Your task to perform on an android device: turn off smart reply in the gmail app Image 0: 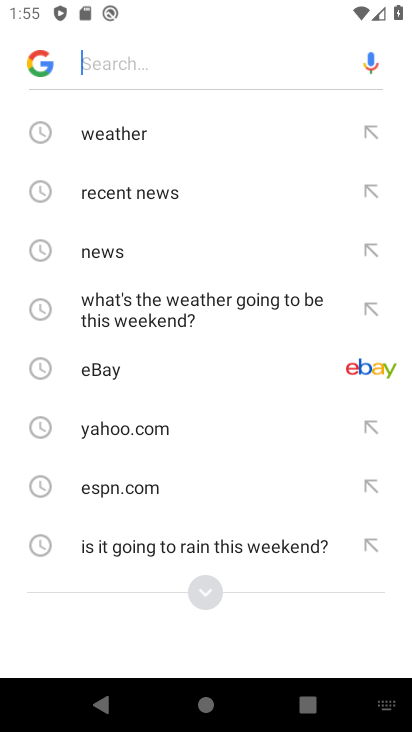
Step 0: press home button
Your task to perform on an android device: turn off smart reply in the gmail app Image 1: 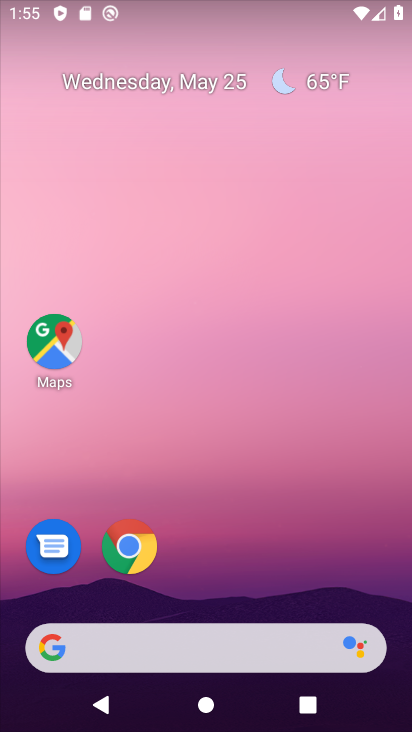
Step 1: drag from (261, 567) to (172, 35)
Your task to perform on an android device: turn off smart reply in the gmail app Image 2: 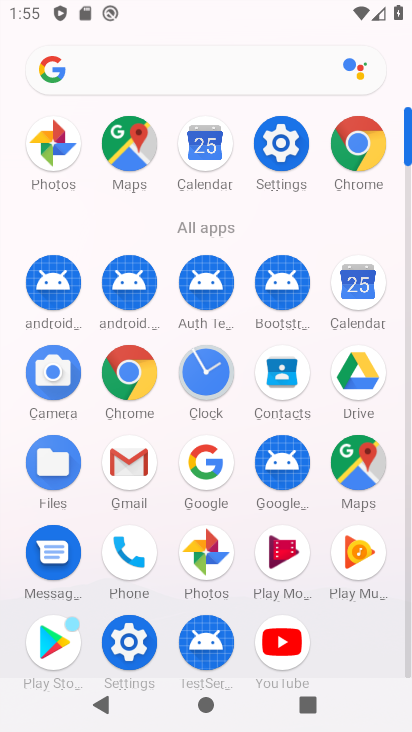
Step 2: click (127, 459)
Your task to perform on an android device: turn off smart reply in the gmail app Image 3: 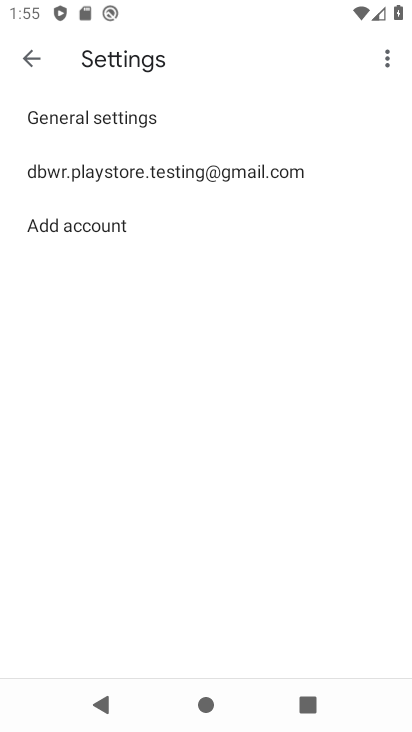
Step 3: click (216, 167)
Your task to perform on an android device: turn off smart reply in the gmail app Image 4: 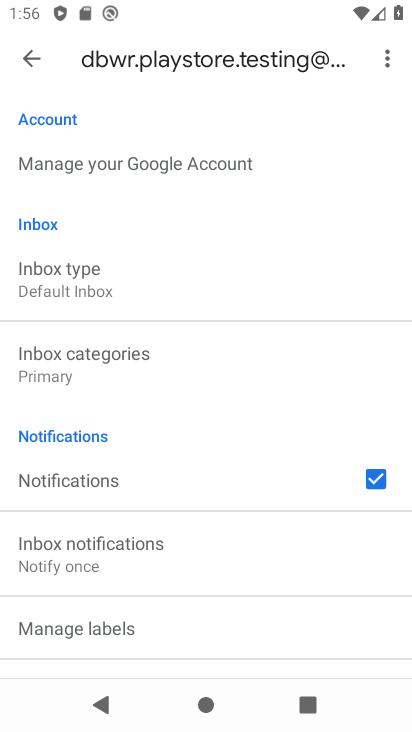
Step 4: drag from (127, 422) to (153, 353)
Your task to perform on an android device: turn off smart reply in the gmail app Image 5: 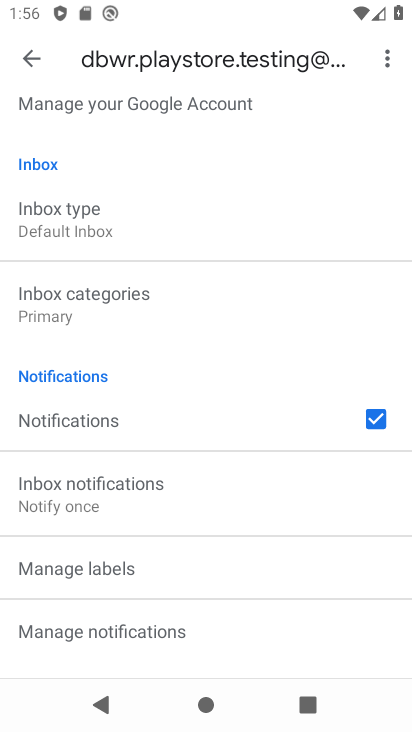
Step 5: drag from (158, 562) to (193, 419)
Your task to perform on an android device: turn off smart reply in the gmail app Image 6: 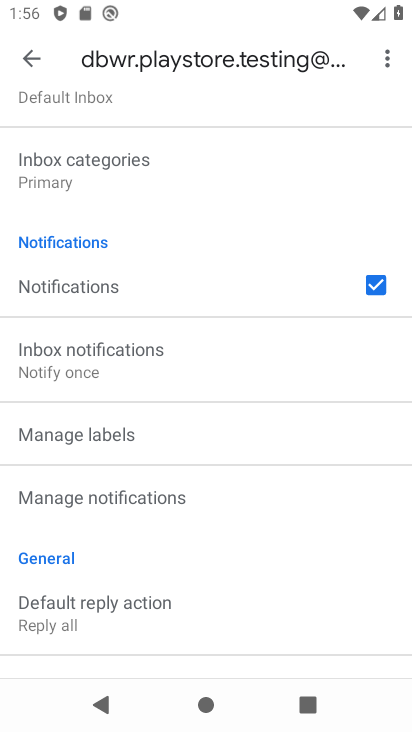
Step 6: drag from (131, 542) to (184, 413)
Your task to perform on an android device: turn off smart reply in the gmail app Image 7: 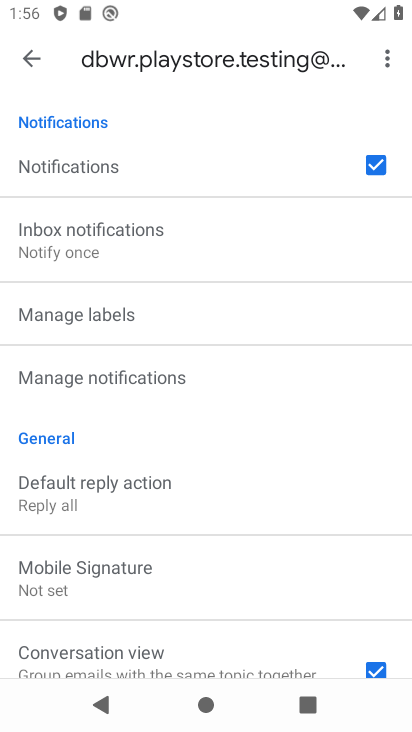
Step 7: drag from (156, 589) to (250, 444)
Your task to perform on an android device: turn off smart reply in the gmail app Image 8: 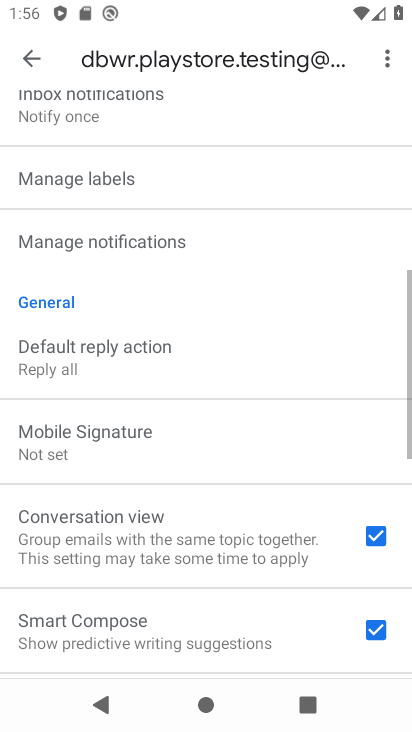
Step 8: drag from (170, 613) to (246, 480)
Your task to perform on an android device: turn off smart reply in the gmail app Image 9: 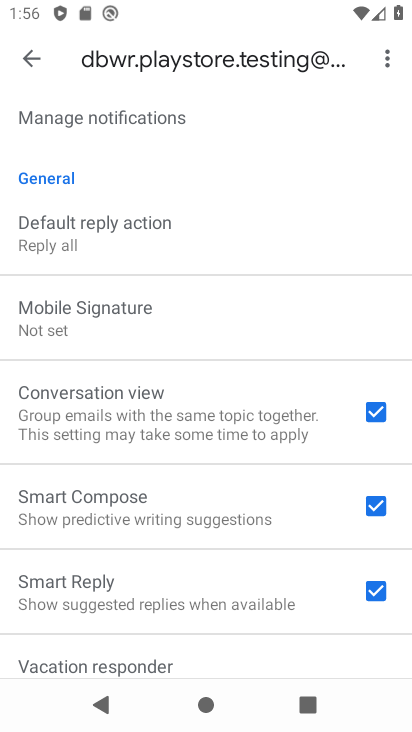
Step 9: click (376, 596)
Your task to perform on an android device: turn off smart reply in the gmail app Image 10: 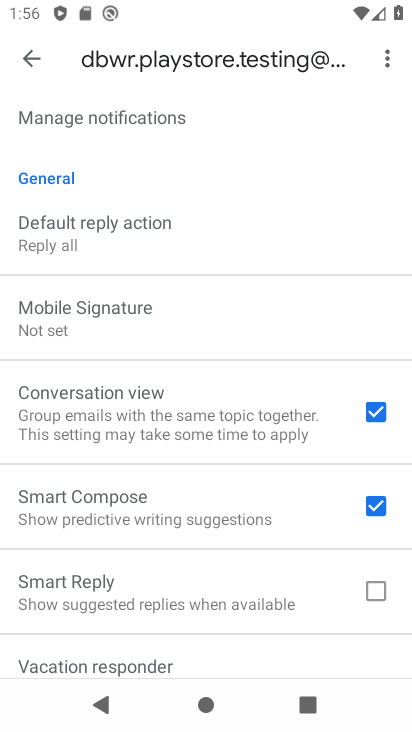
Step 10: task complete